Your task to perform on an android device: Open the stopwatch Image 0: 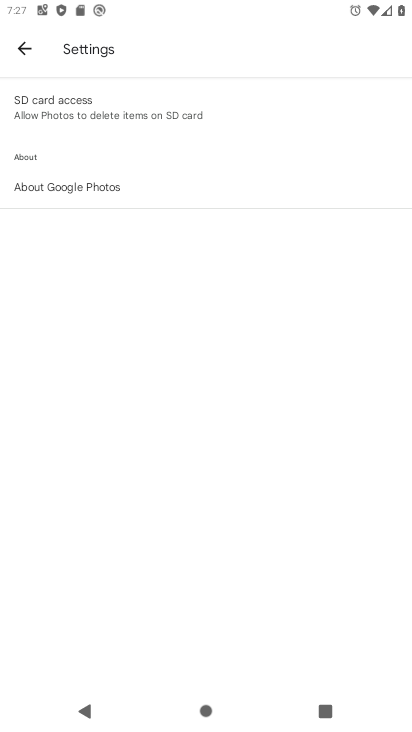
Step 0: press home button
Your task to perform on an android device: Open the stopwatch Image 1: 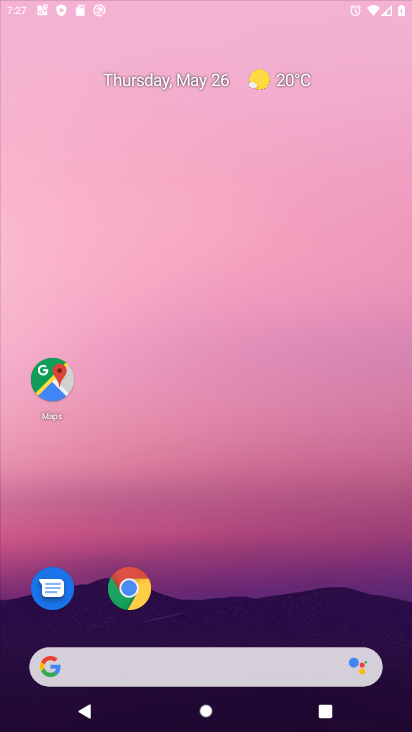
Step 1: drag from (373, 604) to (294, 46)
Your task to perform on an android device: Open the stopwatch Image 2: 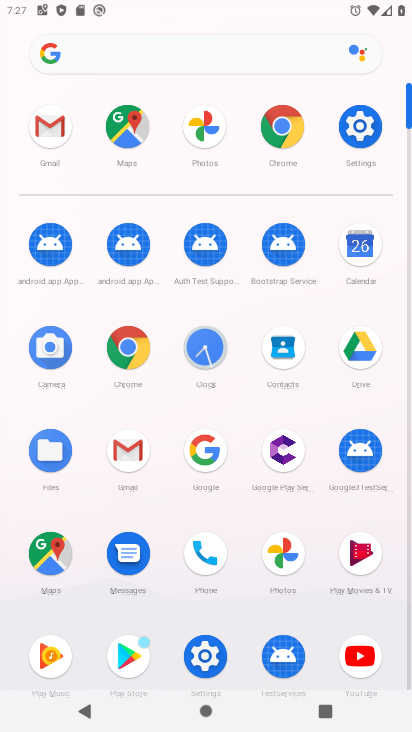
Step 2: click (198, 334)
Your task to perform on an android device: Open the stopwatch Image 3: 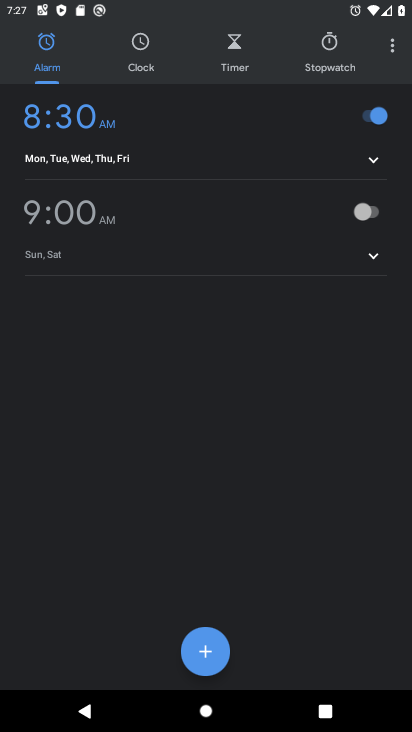
Step 3: click (325, 66)
Your task to perform on an android device: Open the stopwatch Image 4: 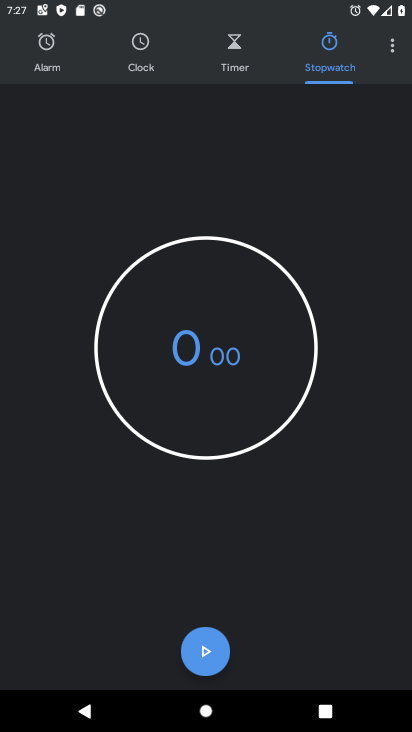
Step 4: task complete